Your task to perform on an android device: What's on my calendar tomorrow? Image 0: 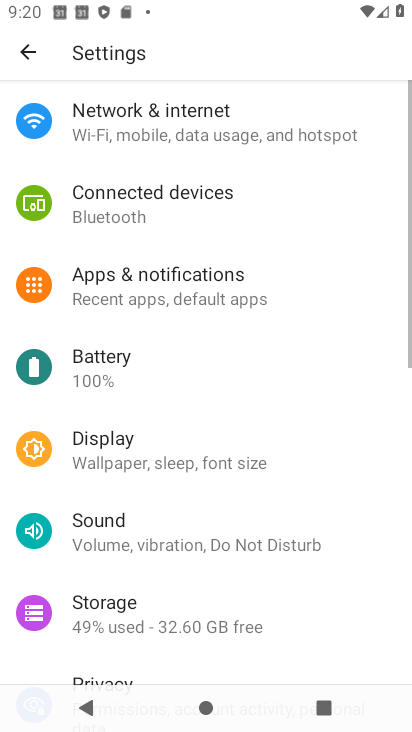
Step 0: drag from (202, 655) to (182, 142)
Your task to perform on an android device: What's on my calendar tomorrow? Image 1: 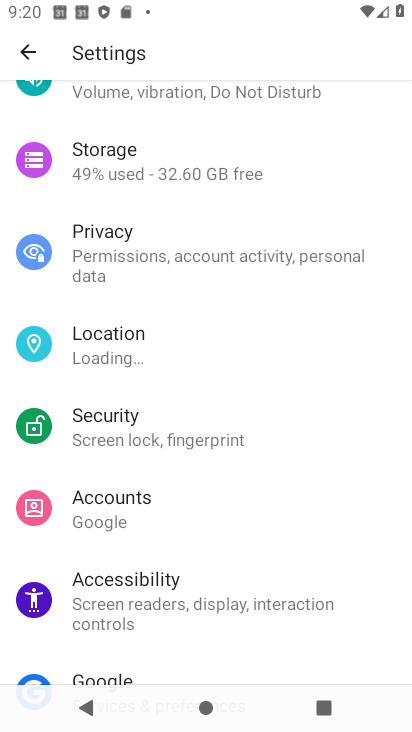
Step 1: drag from (129, 642) to (159, 84)
Your task to perform on an android device: What's on my calendar tomorrow? Image 2: 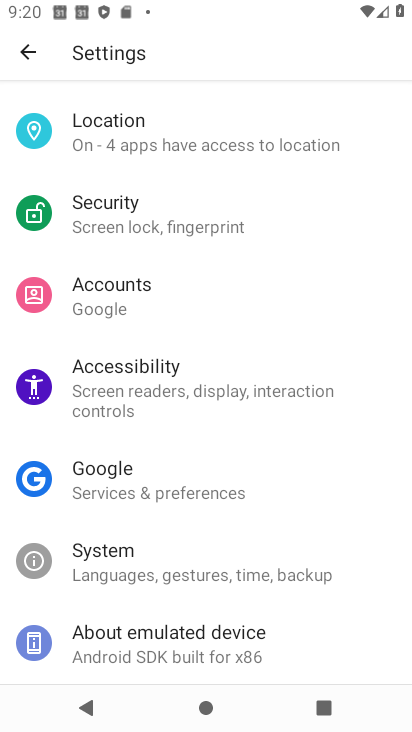
Step 2: click (147, 656)
Your task to perform on an android device: What's on my calendar tomorrow? Image 3: 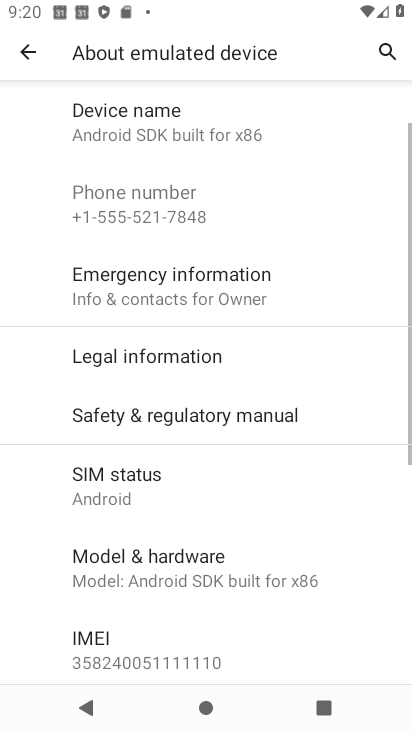
Step 3: drag from (149, 622) to (154, 371)
Your task to perform on an android device: What's on my calendar tomorrow? Image 4: 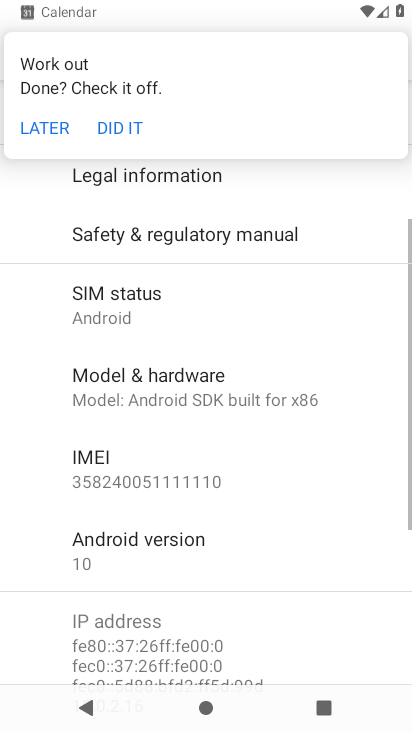
Step 4: click (134, 556)
Your task to perform on an android device: What's on my calendar tomorrow? Image 5: 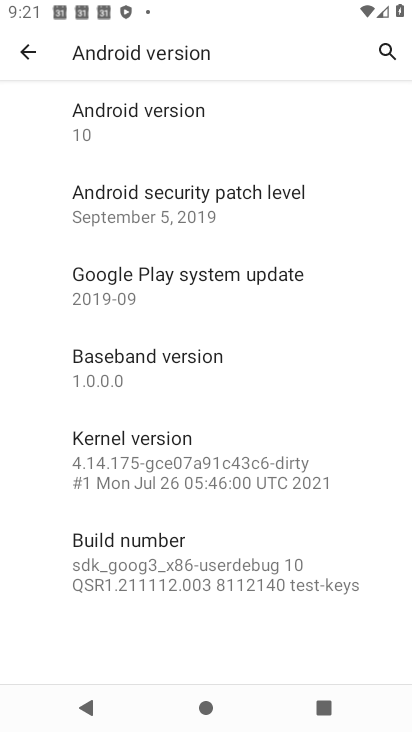
Step 5: task complete